Your task to perform on an android device: Show me productivity apps on the Play Store Image 0: 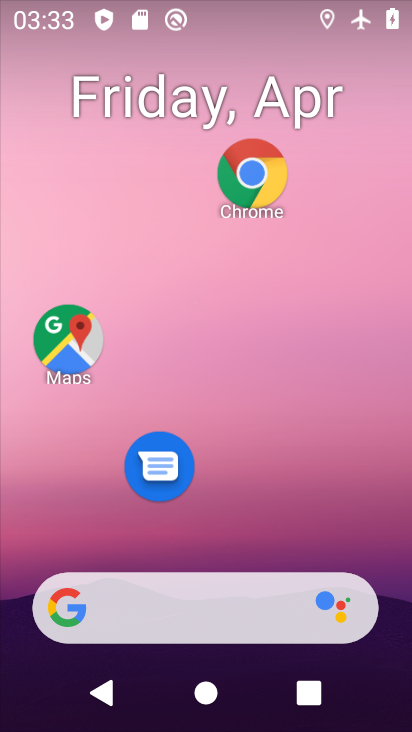
Step 0: drag from (286, 478) to (169, 70)
Your task to perform on an android device: Show me productivity apps on the Play Store Image 1: 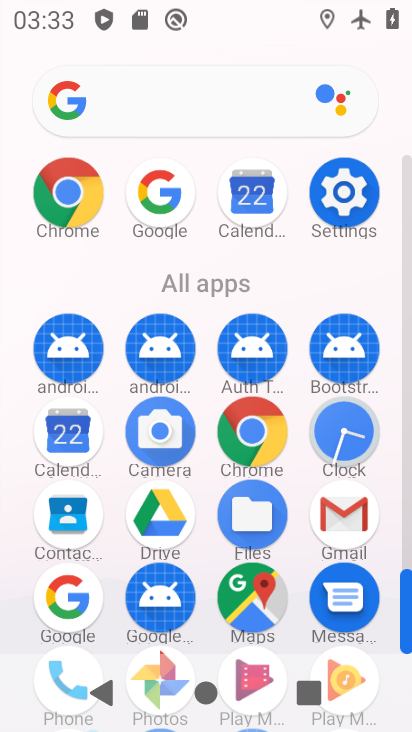
Step 1: drag from (205, 306) to (222, 45)
Your task to perform on an android device: Show me productivity apps on the Play Store Image 2: 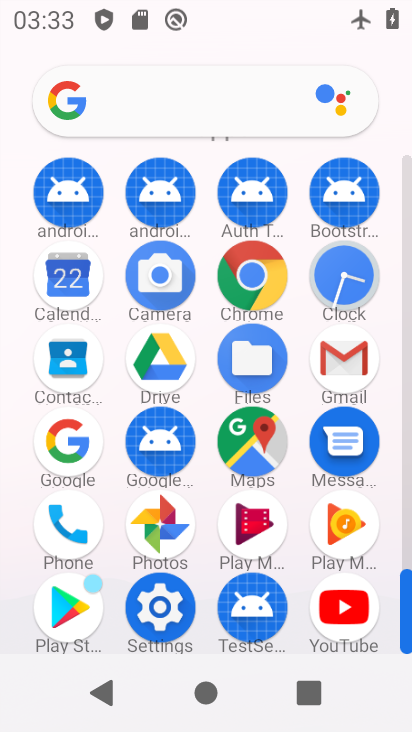
Step 2: click (83, 609)
Your task to perform on an android device: Show me productivity apps on the Play Store Image 3: 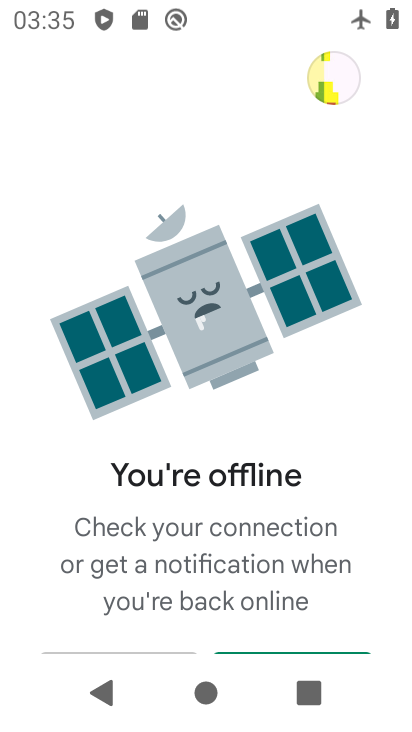
Step 3: task complete